Your task to perform on an android device: turn off sleep mode Image 0: 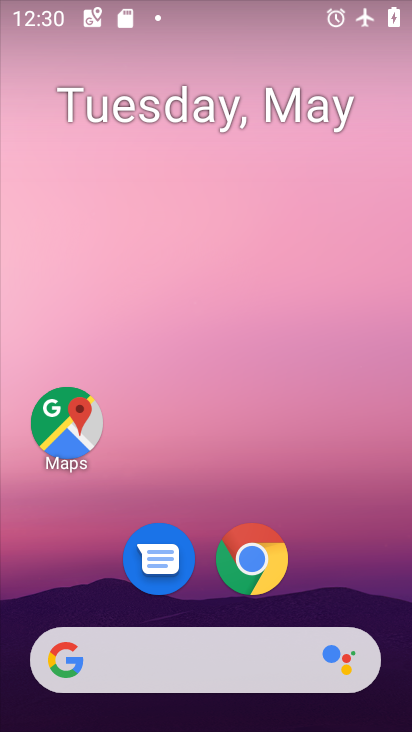
Step 0: drag from (354, 595) to (235, 250)
Your task to perform on an android device: turn off sleep mode Image 1: 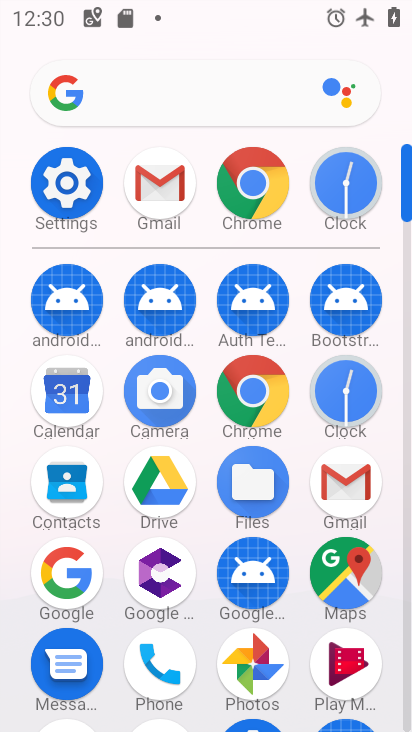
Step 1: click (252, 199)
Your task to perform on an android device: turn off sleep mode Image 2: 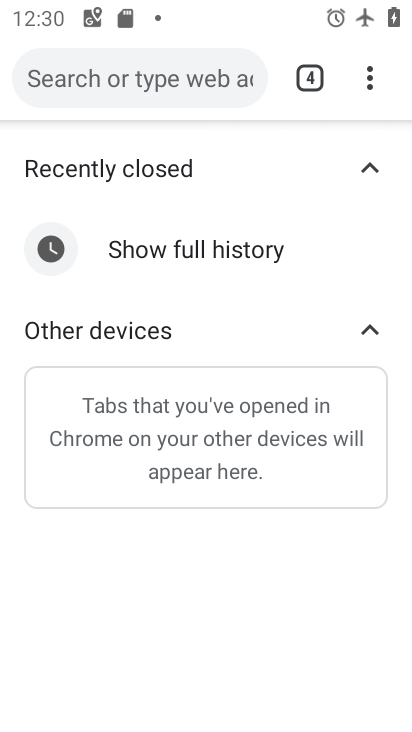
Step 2: press back button
Your task to perform on an android device: turn off sleep mode Image 3: 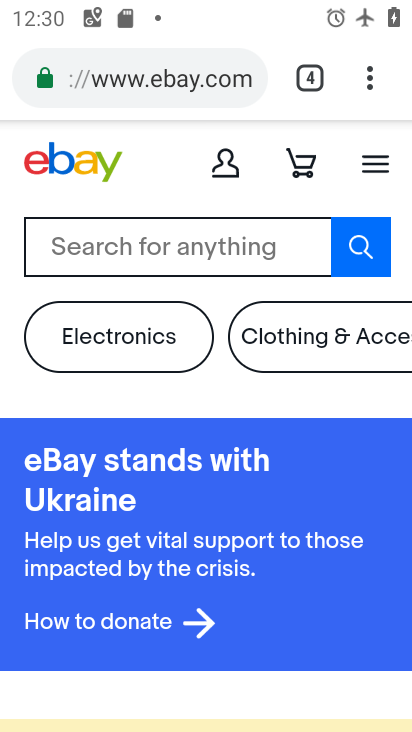
Step 3: press home button
Your task to perform on an android device: turn off sleep mode Image 4: 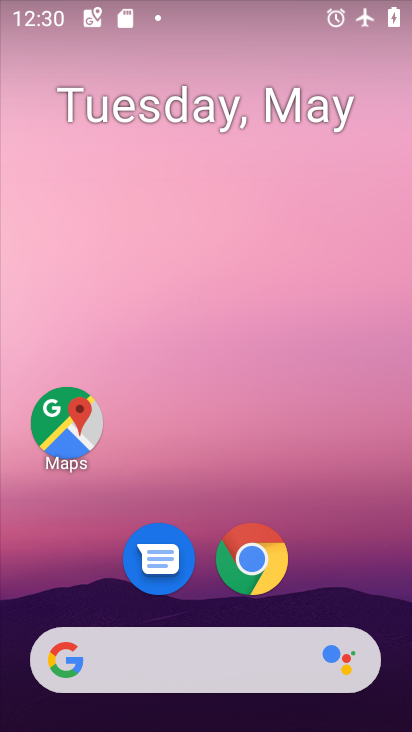
Step 4: drag from (379, 608) to (191, 122)
Your task to perform on an android device: turn off sleep mode Image 5: 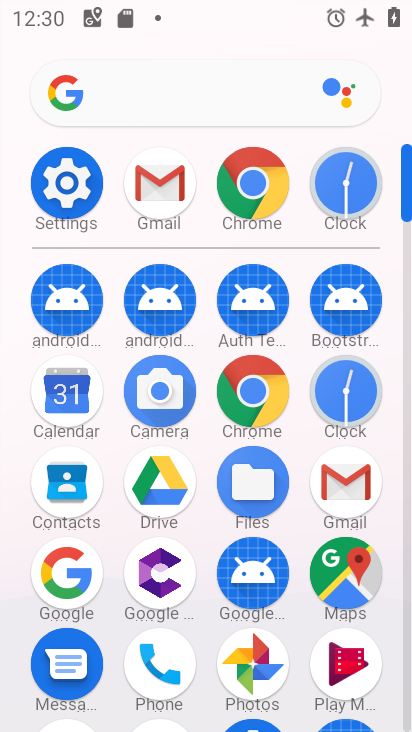
Step 5: click (69, 198)
Your task to perform on an android device: turn off sleep mode Image 6: 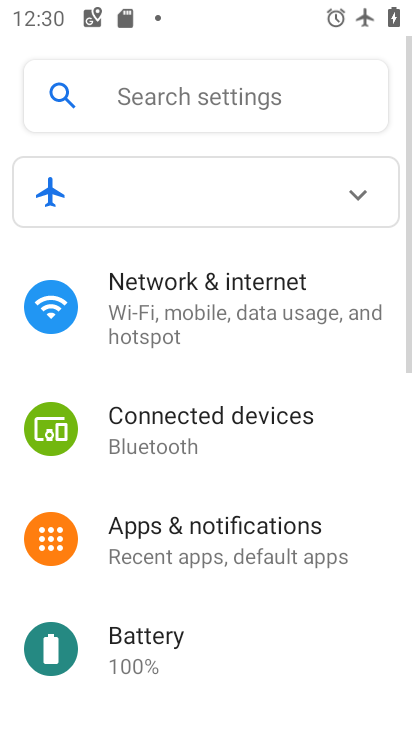
Step 6: drag from (211, 649) to (105, 258)
Your task to perform on an android device: turn off sleep mode Image 7: 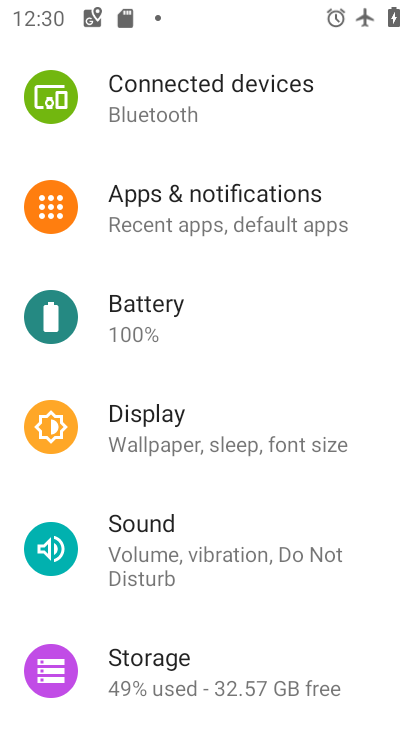
Step 7: click (213, 418)
Your task to perform on an android device: turn off sleep mode Image 8: 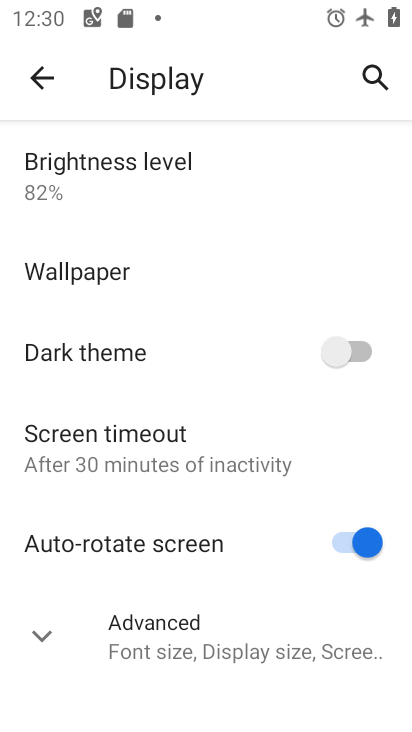
Step 8: drag from (298, 551) to (254, 301)
Your task to perform on an android device: turn off sleep mode Image 9: 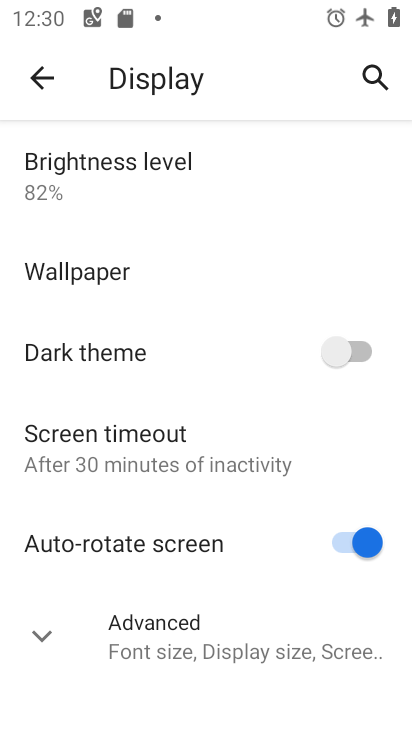
Step 9: click (218, 633)
Your task to perform on an android device: turn off sleep mode Image 10: 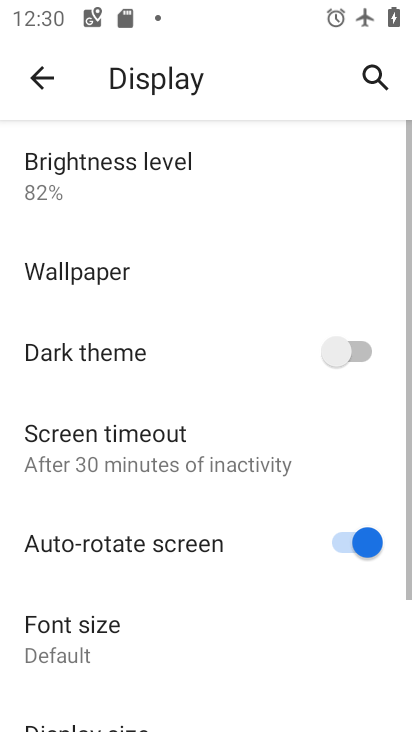
Step 10: task complete